Your task to perform on an android device: turn on improve location accuracy Image 0: 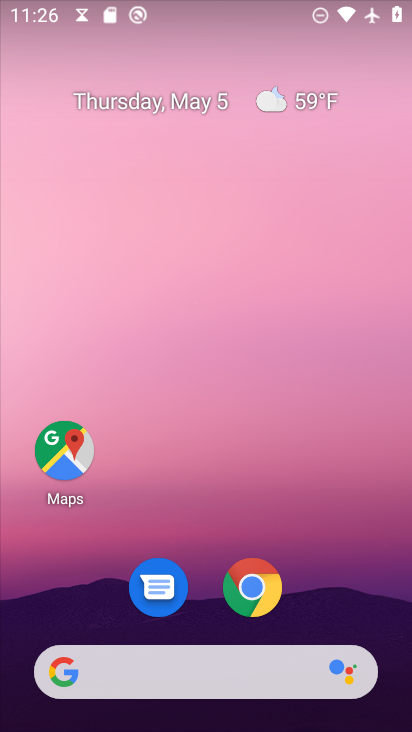
Step 0: drag from (317, 554) to (211, 0)
Your task to perform on an android device: turn on improve location accuracy Image 1: 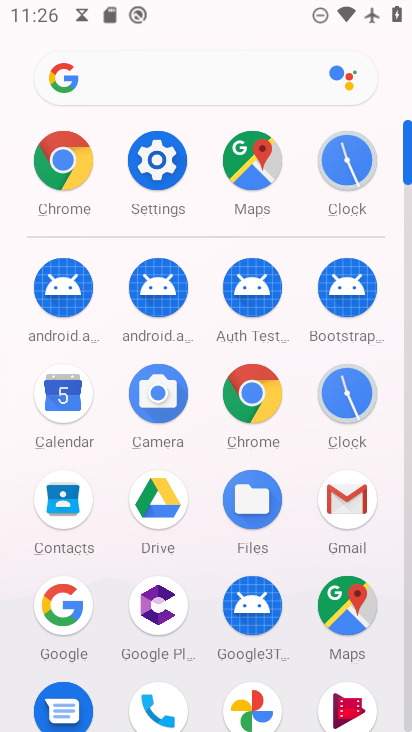
Step 1: drag from (15, 601) to (12, 165)
Your task to perform on an android device: turn on improve location accuracy Image 2: 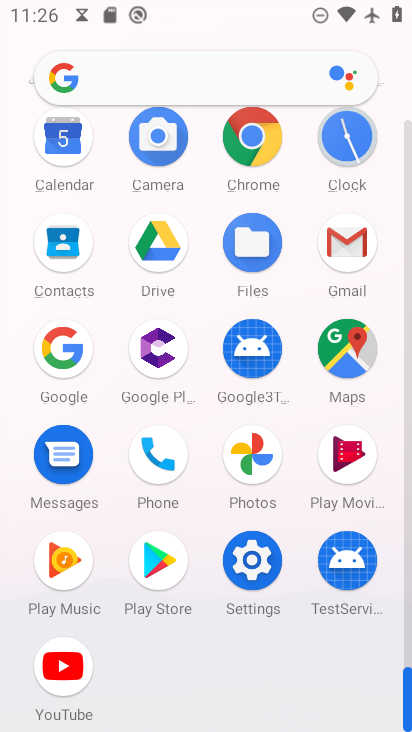
Step 2: drag from (11, 561) to (1, 252)
Your task to perform on an android device: turn on improve location accuracy Image 3: 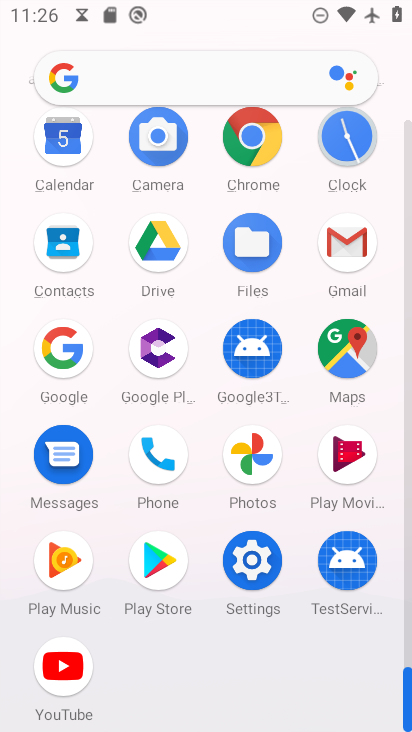
Step 3: click (251, 558)
Your task to perform on an android device: turn on improve location accuracy Image 4: 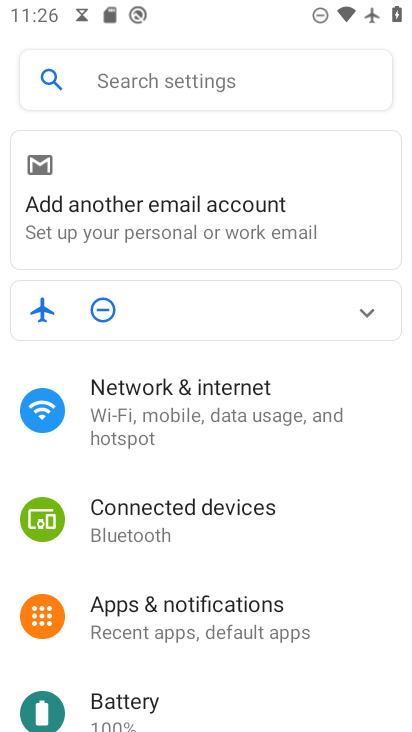
Step 4: drag from (289, 573) to (297, 157)
Your task to perform on an android device: turn on improve location accuracy Image 5: 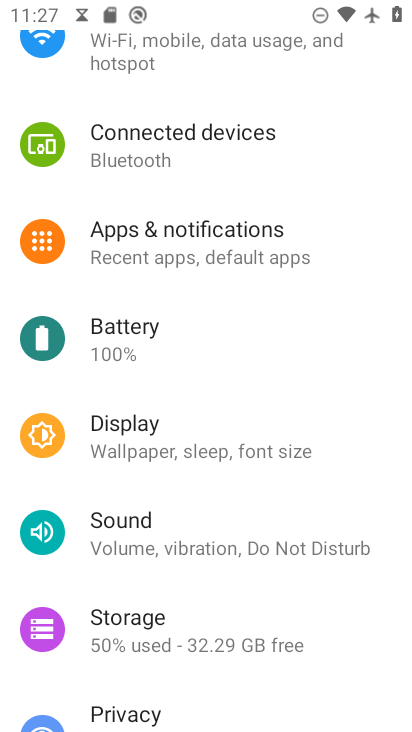
Step 5: drag from (252, 507) to (274, 138)
Your task to perform on an android device: turn on improve location accuracy Image 6: 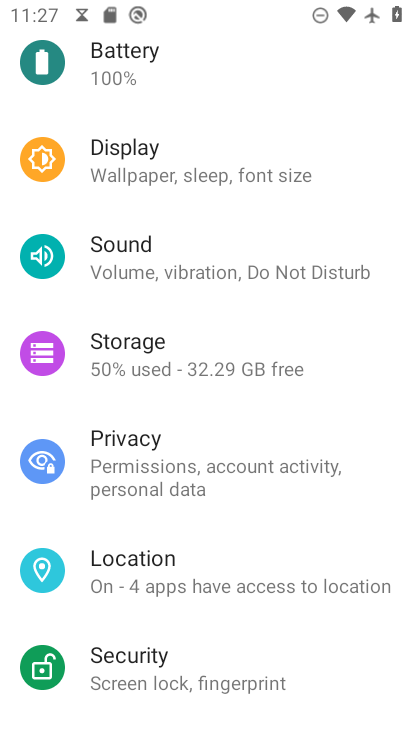
Step 6: click (167, 577)
Your task to perform on an android device: turn on improve location accuracy Image 7: 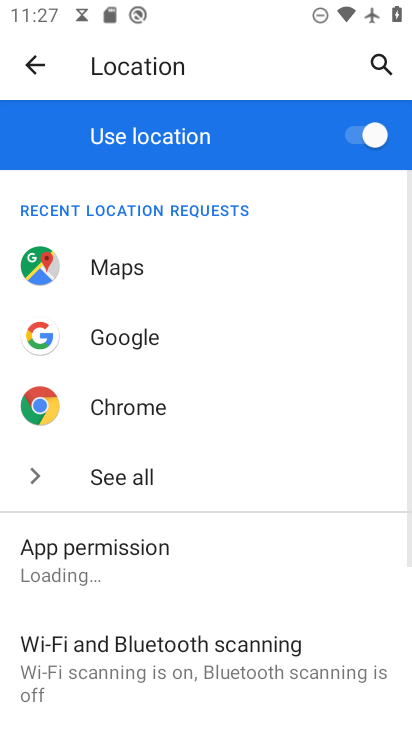
Step 7: drag from (264, 524) to (284, 122)
Your task to perform on an android device: turn on improve location accuracy Image 8: 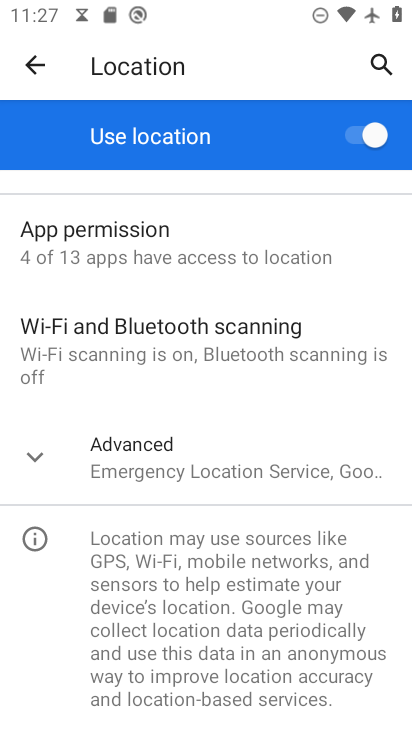
Step 8: click (31, 454)
Your task to perform on an android device: turn on improve location accuracy Image 9: 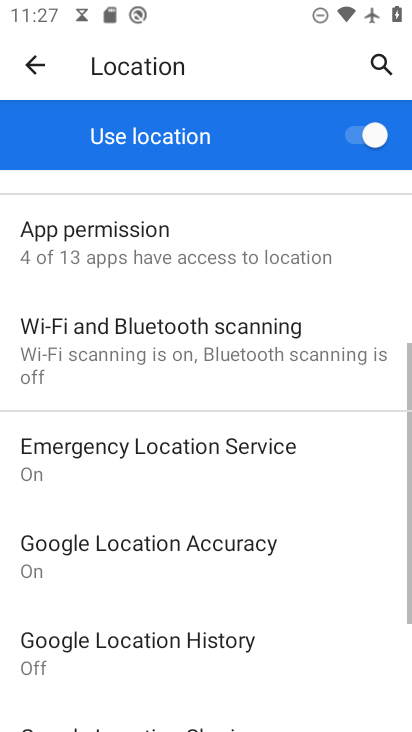
Step 9: drag from (265, 622) to (278, 201)
Your task to perform on an android device: turn on improve location accuracy Image 10: 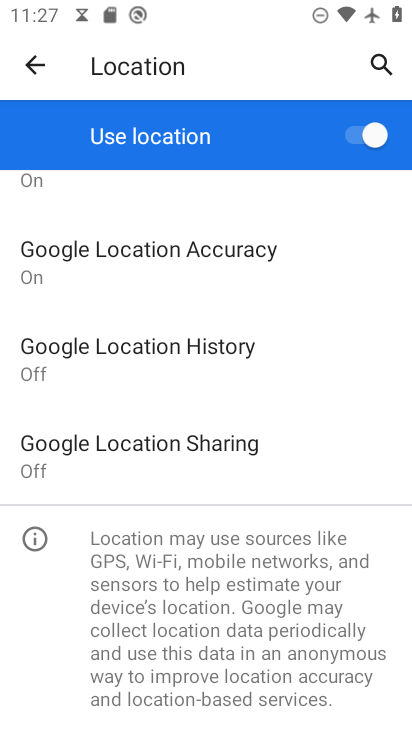
Step 10: click (206, 251)
Your task to perform on an android device: turn on improve location accuracy Image 11: 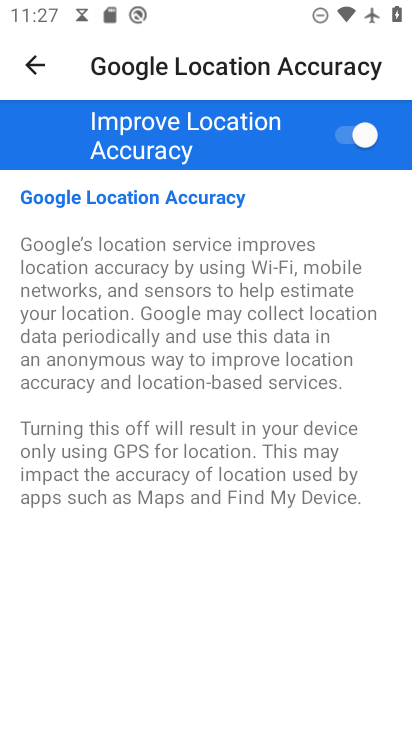
Step 11: task complete